Your task to perform on an android device: What's on my calendar today? Image 0: 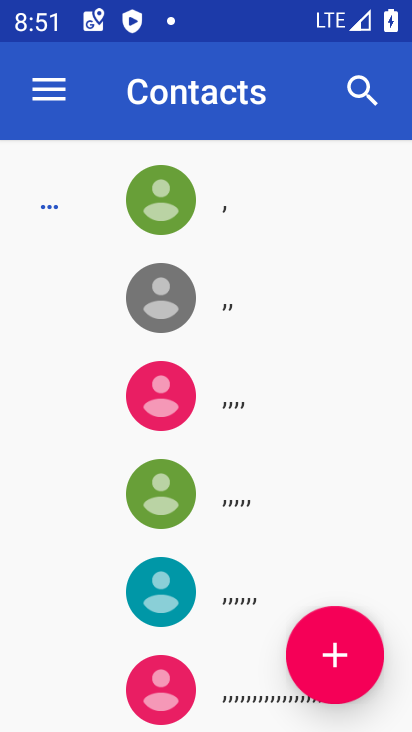
Step 0: press home button
Your task to perform on an android device: What's on my calendar today? Image 1: 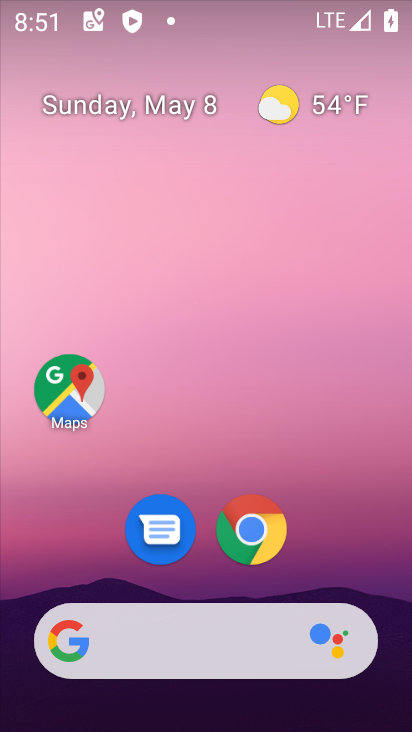
Step 1: drag from (345, 529) to (365, 122)
Your task to perform on an android device: What's on my calendar today? Image 2: 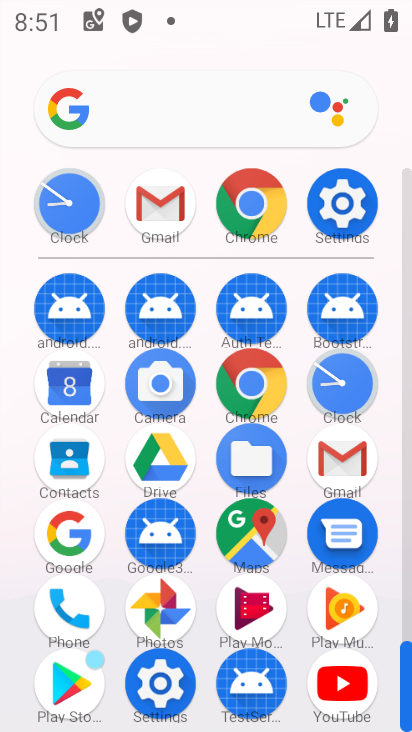
Step 2: click (61, 390)
Your task to perform on an android device: What's on my calendar today? Image 3: 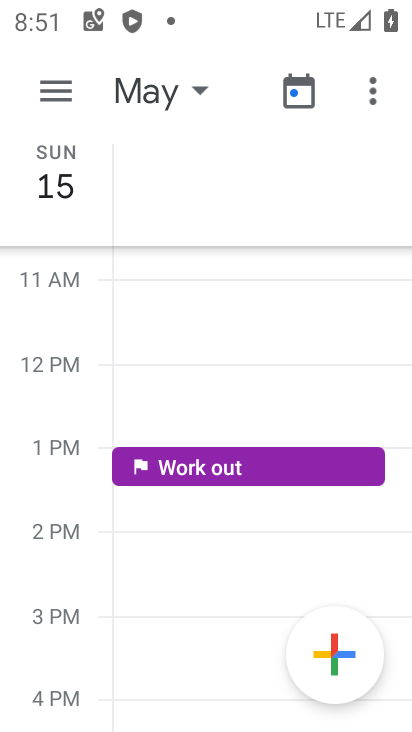
Step 3: click (126, 100)
Your task to perform on an android device: What's on my calendar today? Image 4: 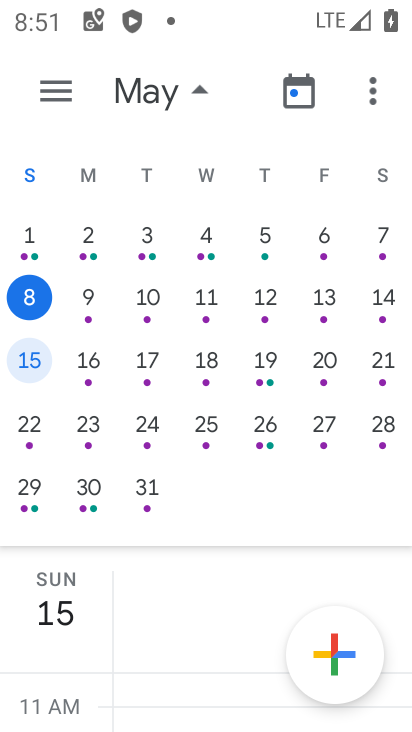
Step 4: click (32, 303)
Your task to perform on an android device: What's on my calendar today? Image 5: 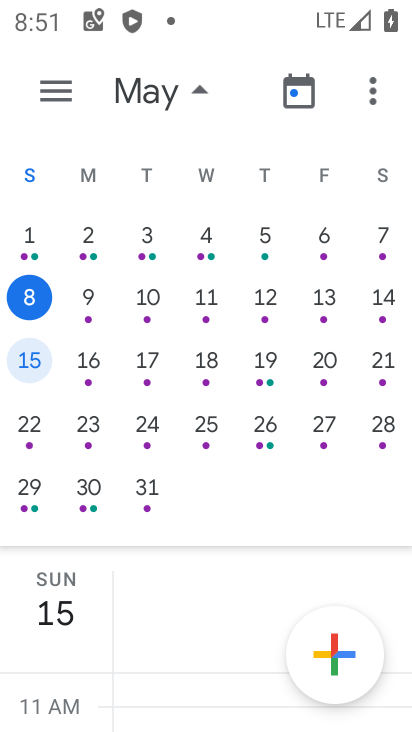
Step 5: click (40, 304)
Your task to perform on an android device: What's on my calendar today? Image 6: 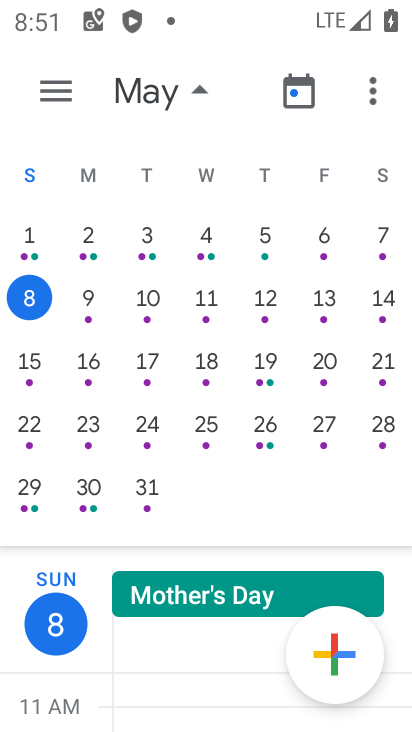
Step 6: click (94, 304)
Your task to perform on an android device: What's on my calendar today? Image 7: 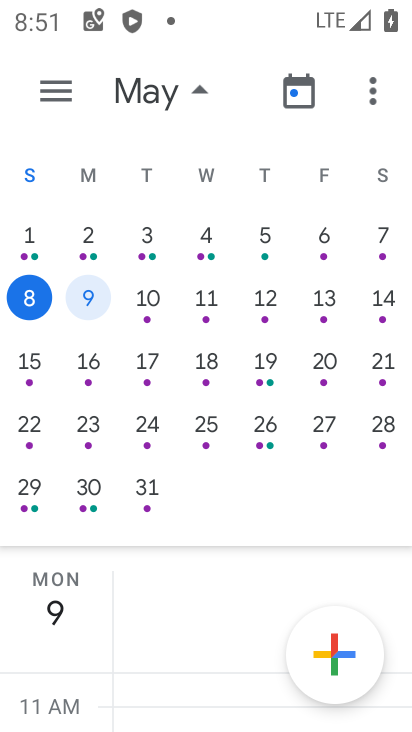
Step 7: task complete